Your task to perform on an android device: Open calendar and show me the third week of next month Image 0: 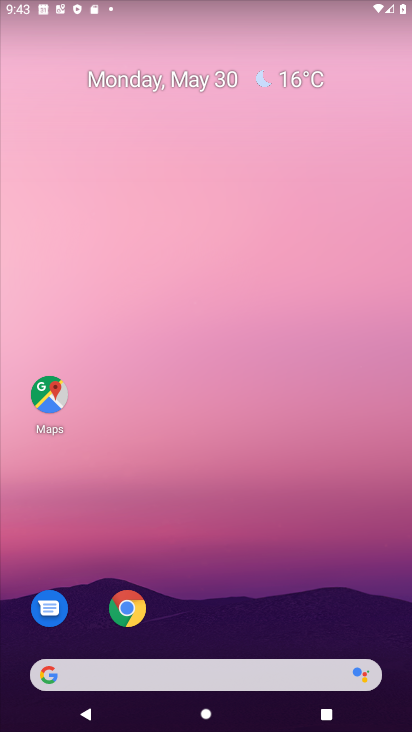
Step 0: drag from (391, 689) to (348, 213)
Your task to perform on an android device: Open calendar and show me the third week of next month Image 1: 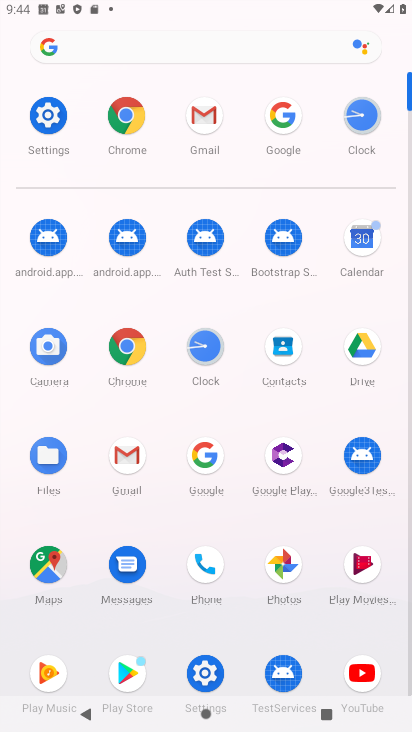
Step 1: click (356, 237)
Your task to perform on an android device: Open calendar and show me the third week of next month Image 2: 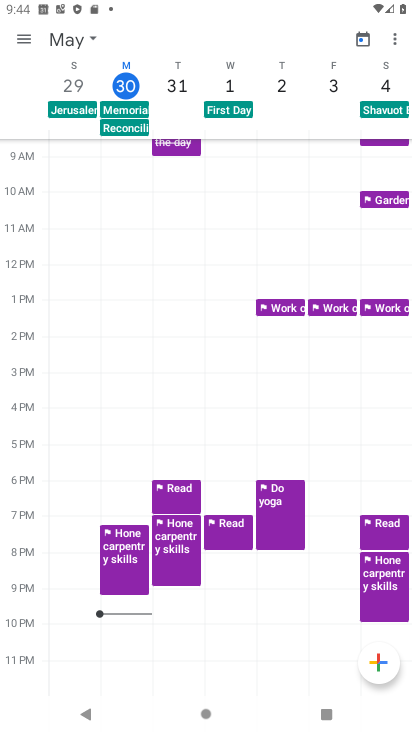
Step 2: click (88, 37)
Your task to perform on an android device: Open calendar and show me the third week of next month Image 3: 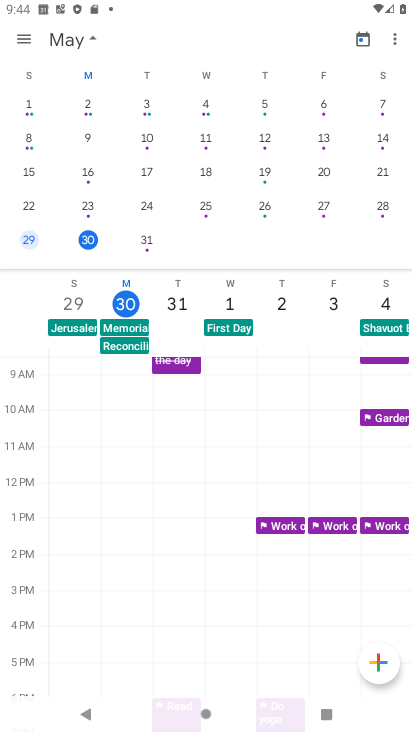
Step 3: drag from (392, 165) to (14, 137)
Your task to perform on an android device: Open calendar and show me the third week of next month Image 4: 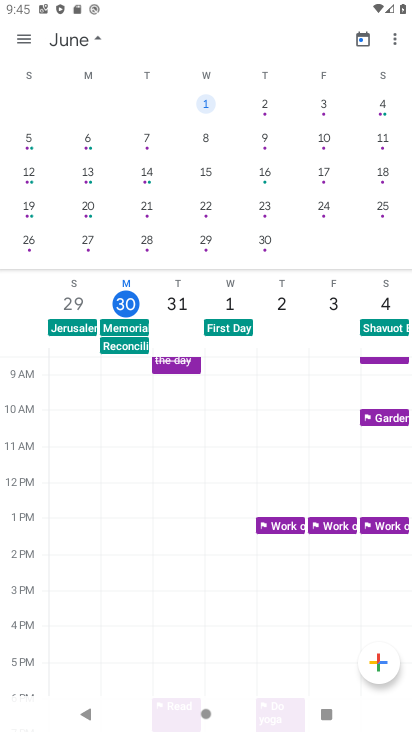
Step 4: click (264, 175)
Your task to perform on an android device: Open calendar and show me the third week of next month Image 5: 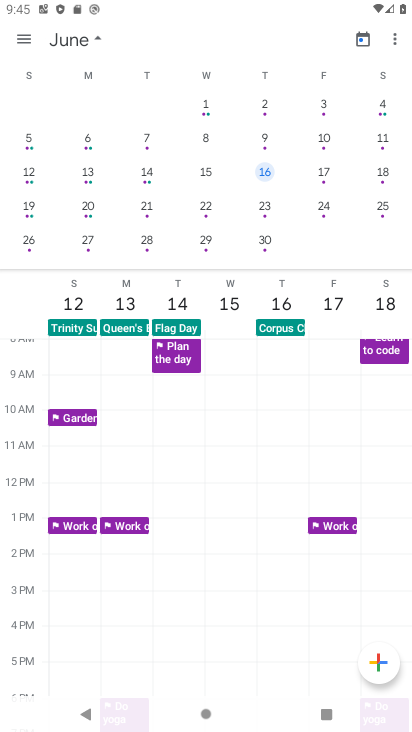
Step 5: task complete